Your task to perform on an android device: open app "Pluto TV - Live TV and Movies" Image 0: 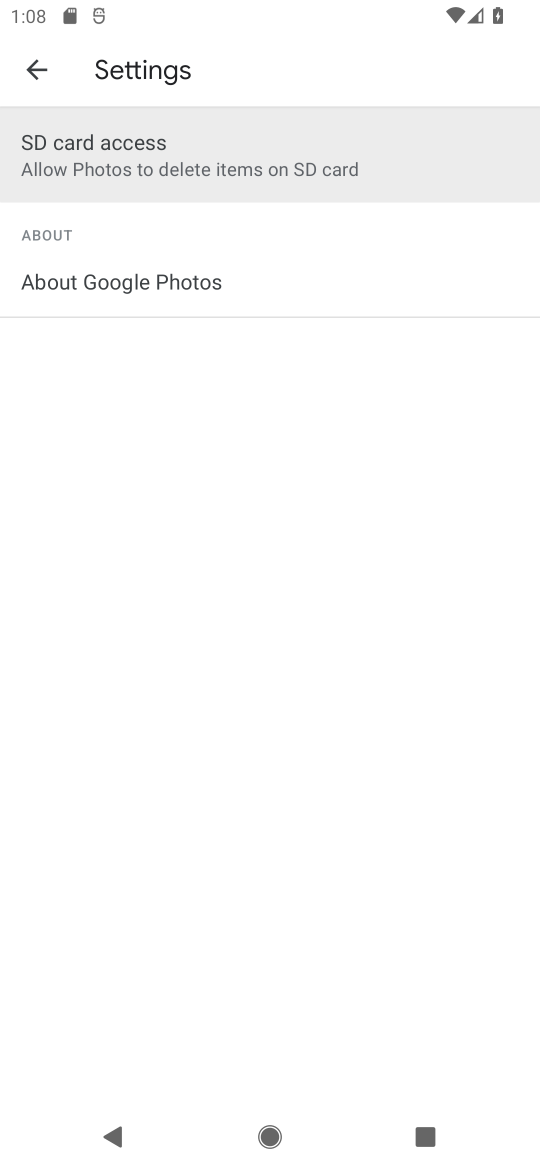
Step 0: press home button
Your task to perform on an android device: open app "Pluto TV - Live TV and Movies" Image 1: 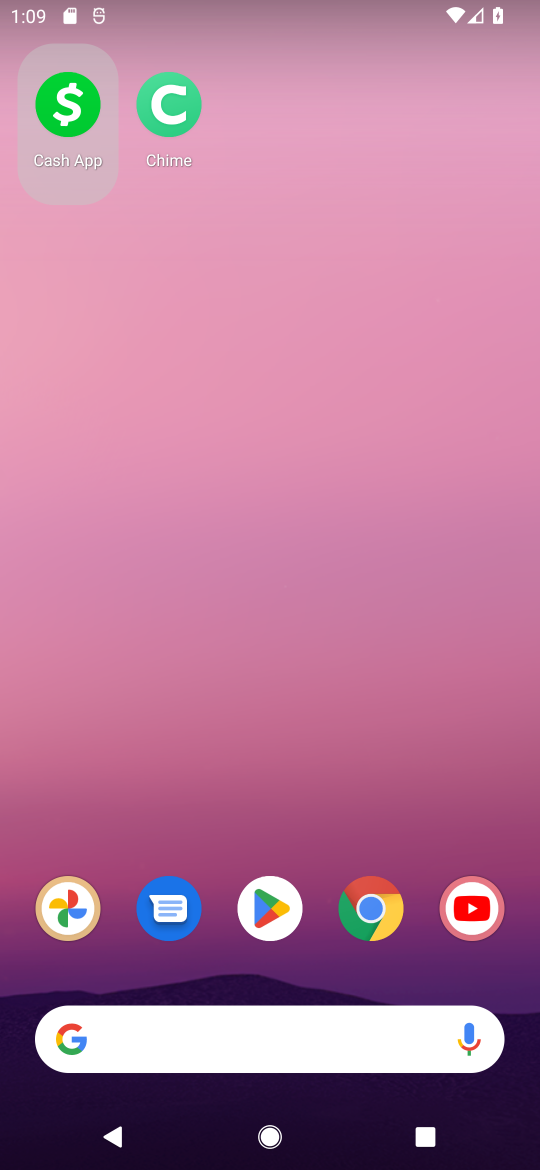
Step 1: click (265, 909)
Your task to perform on an android device: open app "Pluto TV - Live TV and Movies" Image 2: 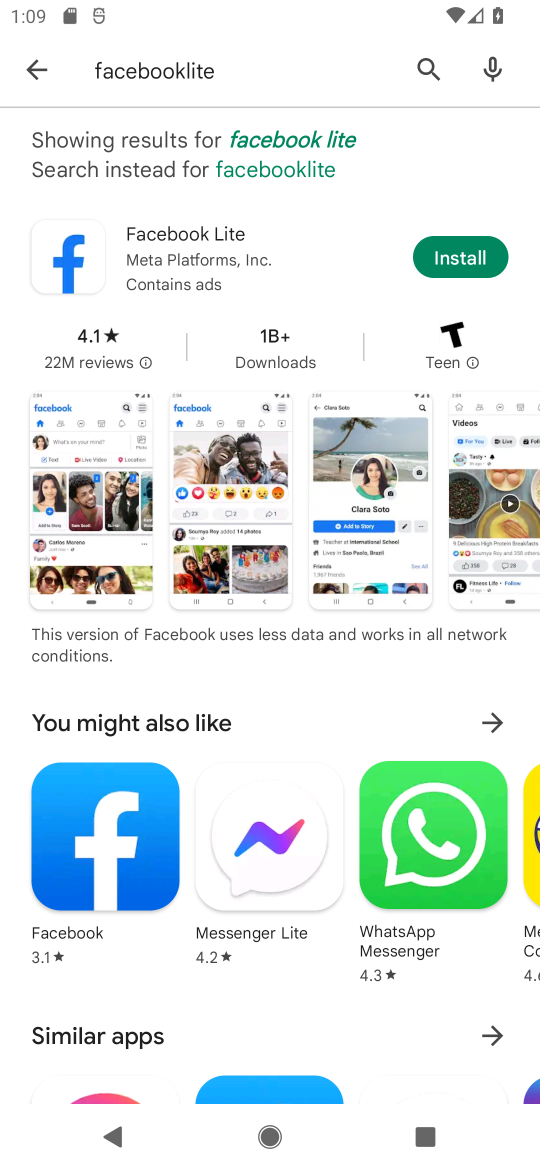
Step 2: click (420, 74)
Your task to perform on an android device: open app "Pluto TV - Live TV and Movies" Image 3: 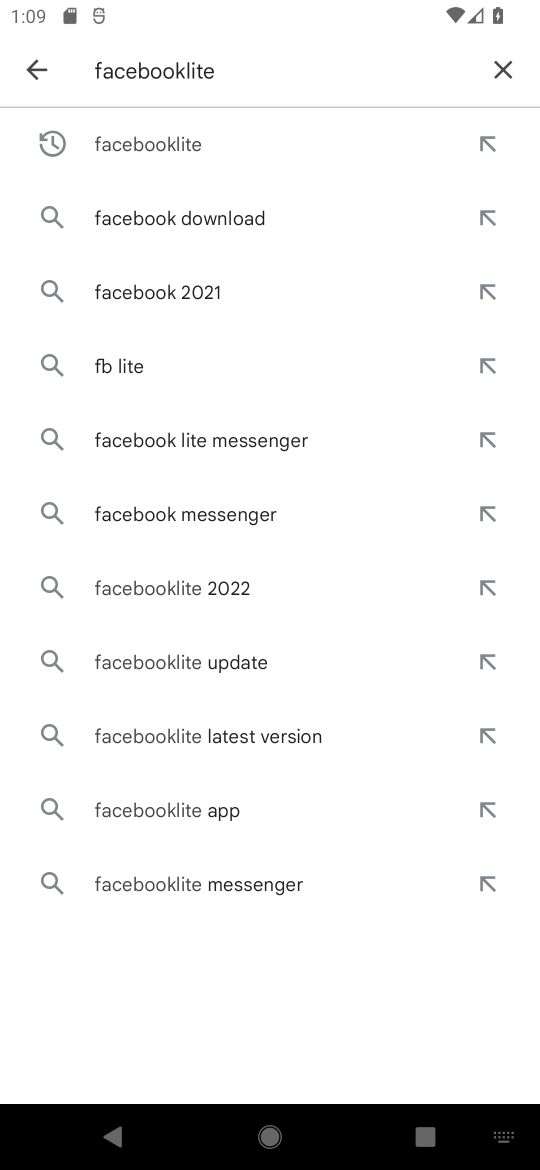
Step 3: click (508, 69)
Your task to perform on an android device: open app "Pluto TV - Live TV and Movies" Image 4: 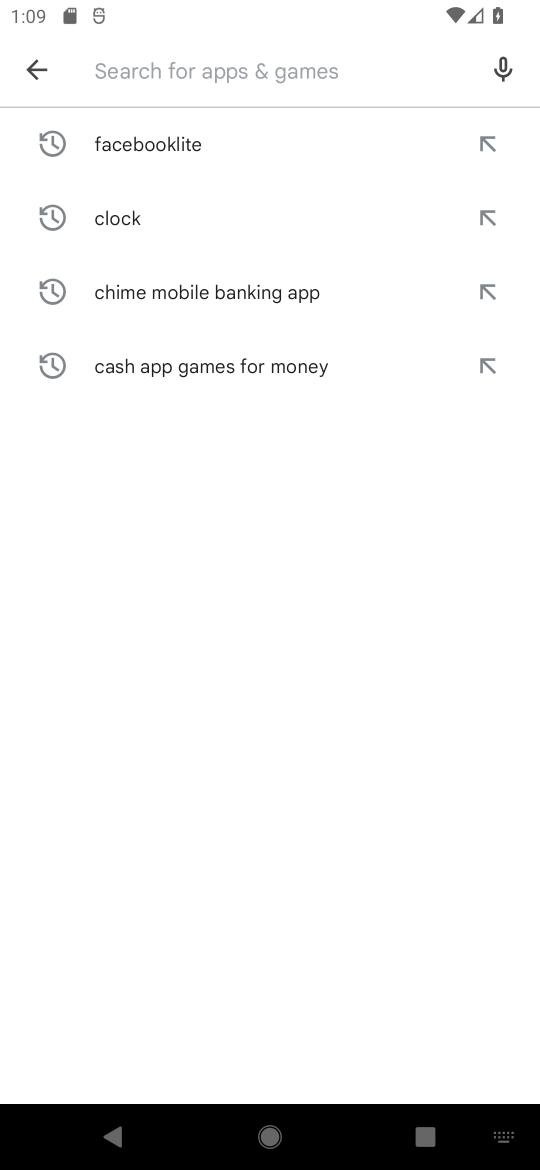
Step 4: type "Pluto TV - Live TV and Movies""
Your task to perform on an android device: open app "Pluto TV - Live TV and Movies" Image 5: 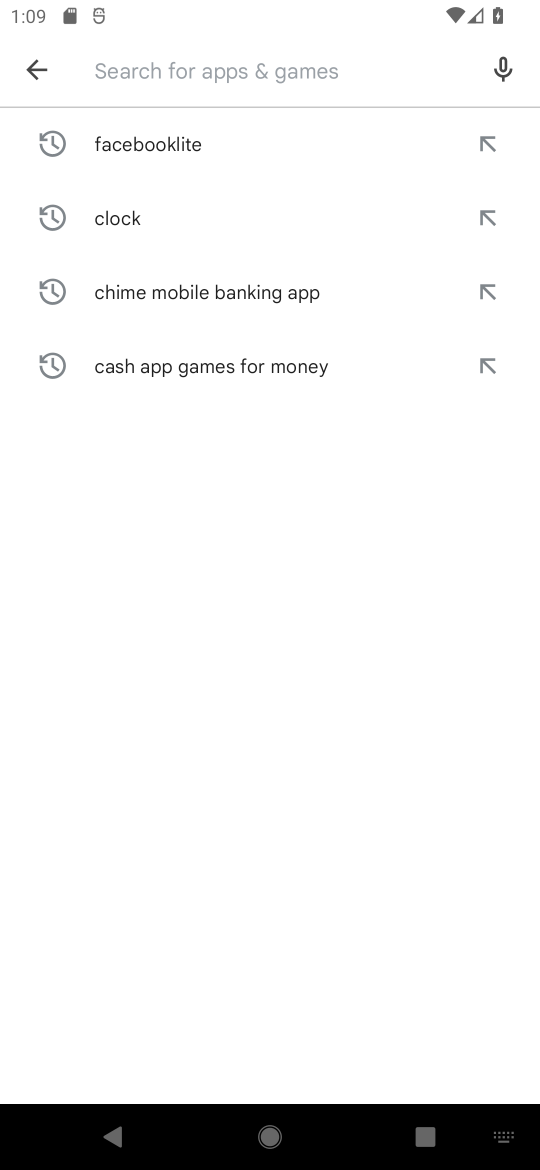
Step 5: type ""
Your task to perform on an android device: open app "Pluto TV - Live TV and Movies" Image 6: 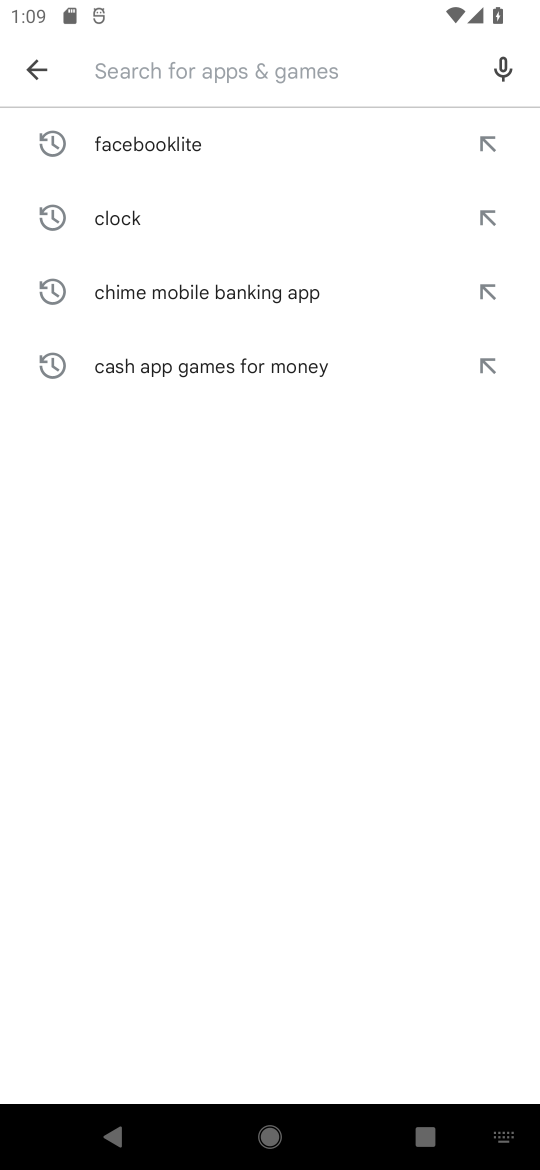
Step 6: type "pluto tv"
Your task to perform on an android device: open app "Pluto TV - Live TV and Movies" Image 7: 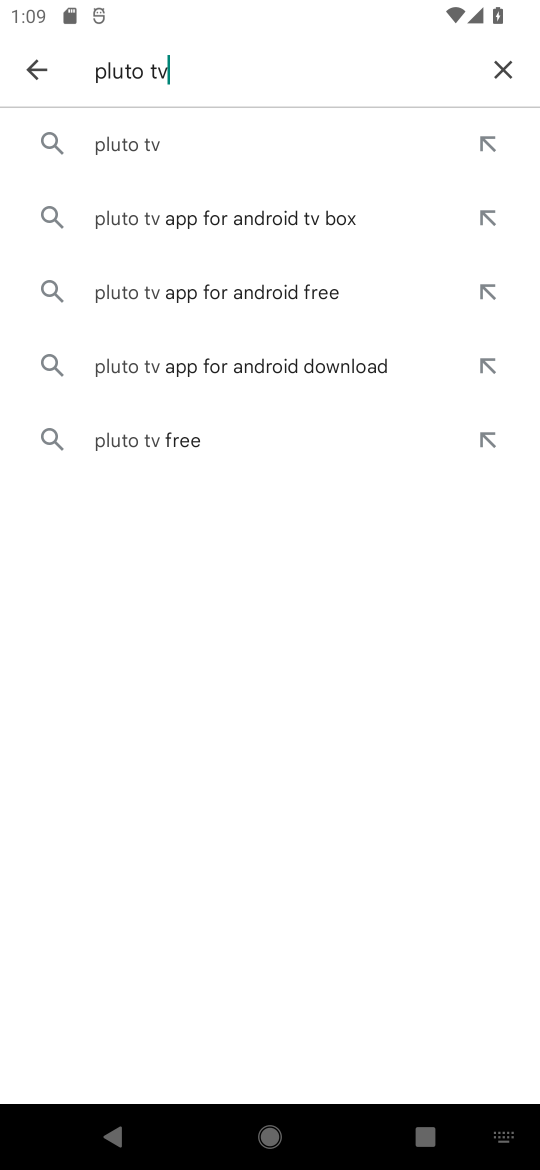
Step 7: click (250, 148)
Your task to perform on an android device: open app "Pluto TV - Live TV and Movies" Image 8: 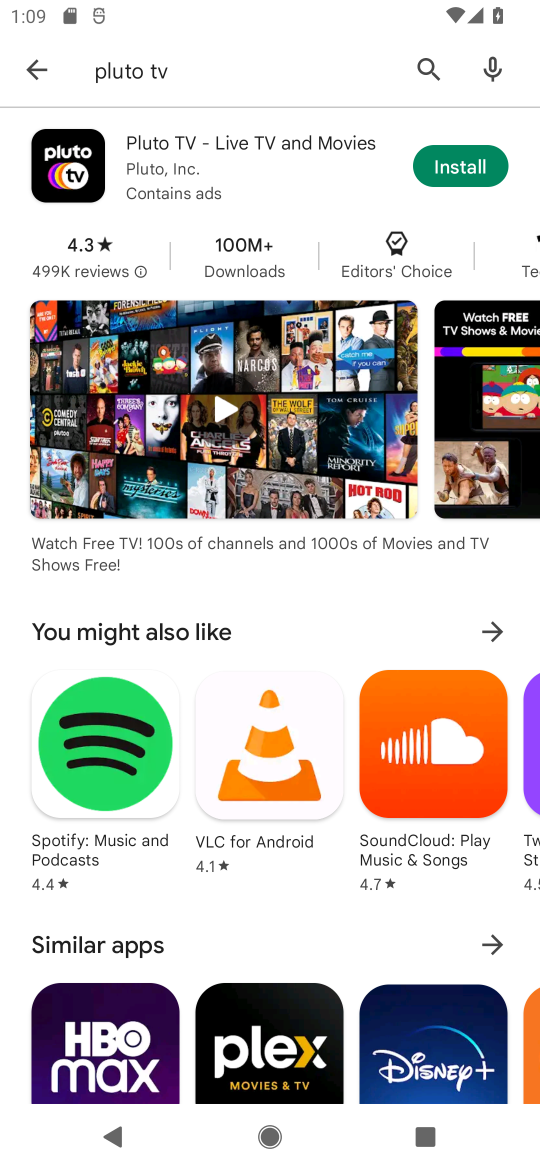
Step 8: task complete